Your task to perform on an android device: open sync settings in chrome Image 0: 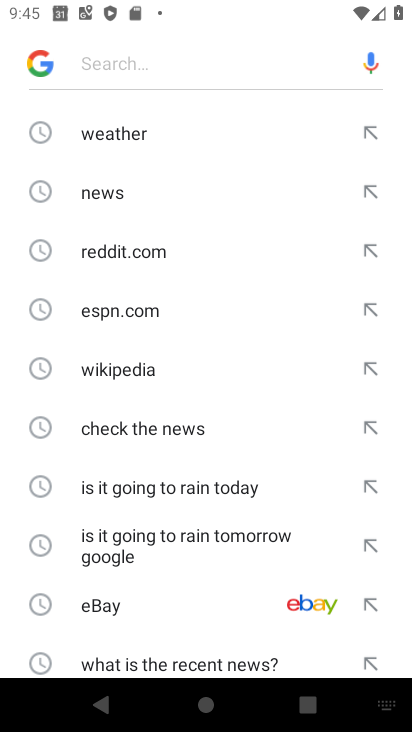
Step 0: press home button
Your task to perform on an android device: open sync settings in chrome Image 1: 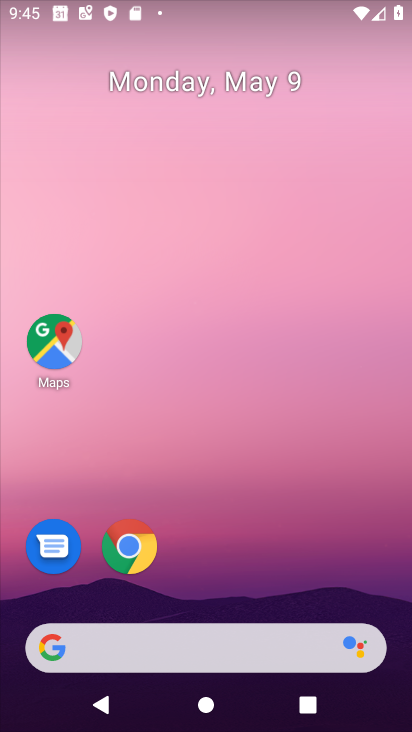
Step 1: click (132, 555)
Your task to perform on an android device: open sync settings in chrome Image 2: 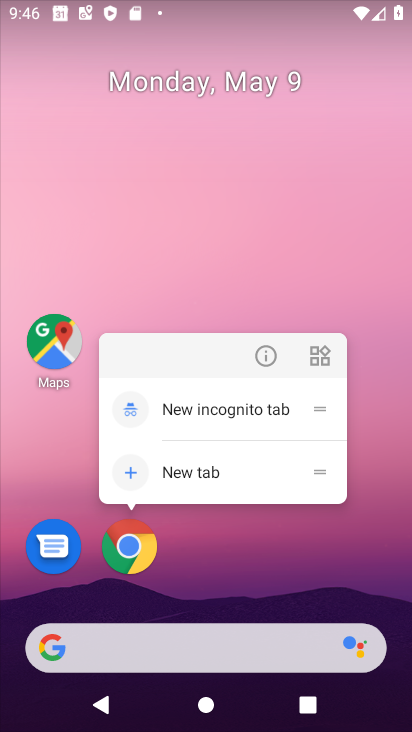
Step 2: click (48, 535)
Your task to perform on an android device: open sync settings in chrome Image 3: 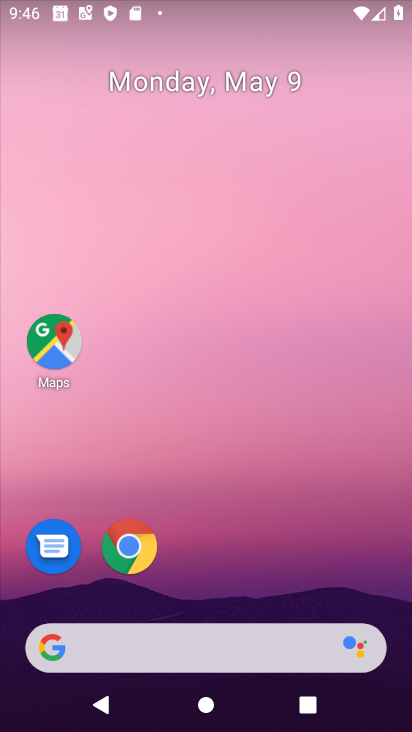
Step 3: click (121, 540)
Your task to perform on an android device: open sync settings in chrome Image 4: 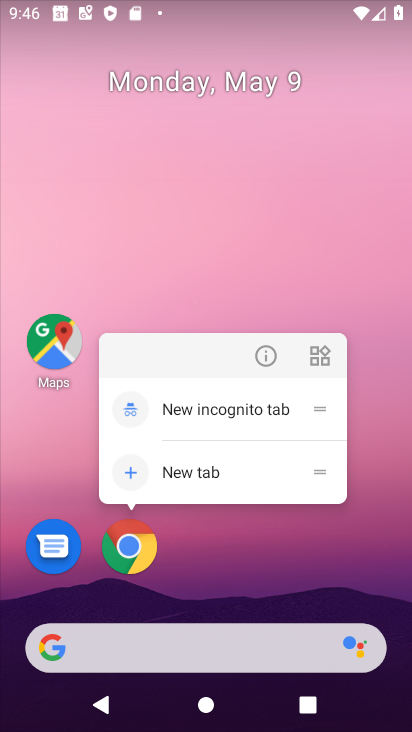
Step 4: click (124, 532)
Your task to perform on an android device: open sync settings in chrome Image 5: 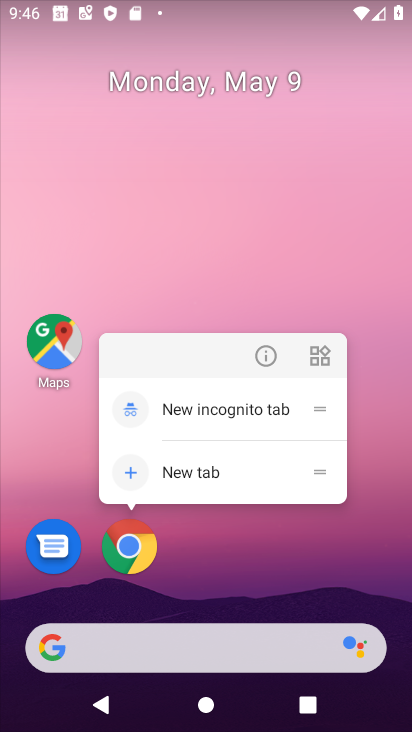
Step 5: click (124, 532)
Your task to perform on an android device: open sync settings in chrome Image 6: 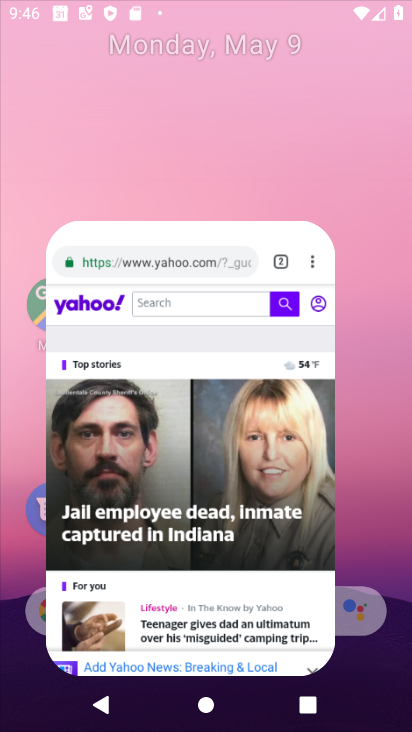
Step 6: click (124, 532)
Your task to perform on an android device: open sync settings in chrome Image 7: 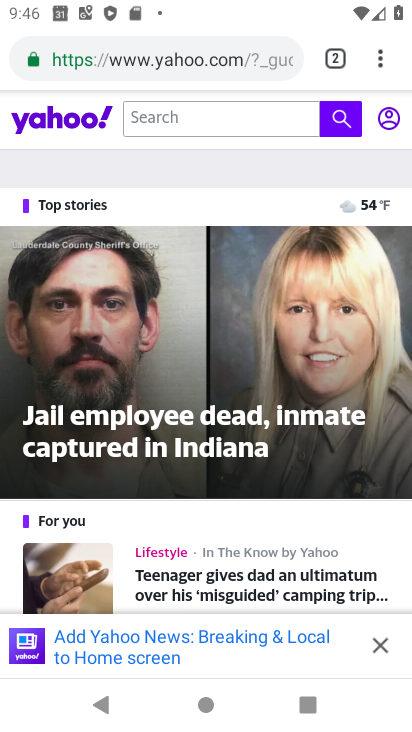
Step 7: click (381, 60)
Your task to perform on an android device: open sync settings in chrome Image 8: 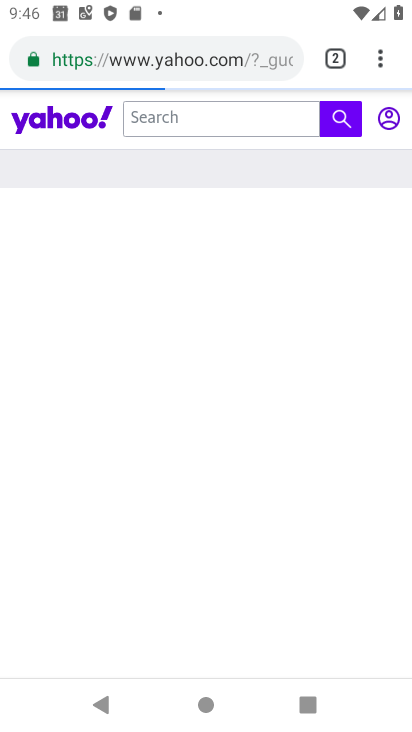
Step 8: click (381, 59)
Your task to perform on an android device: open sync settings in chrome Image 9: 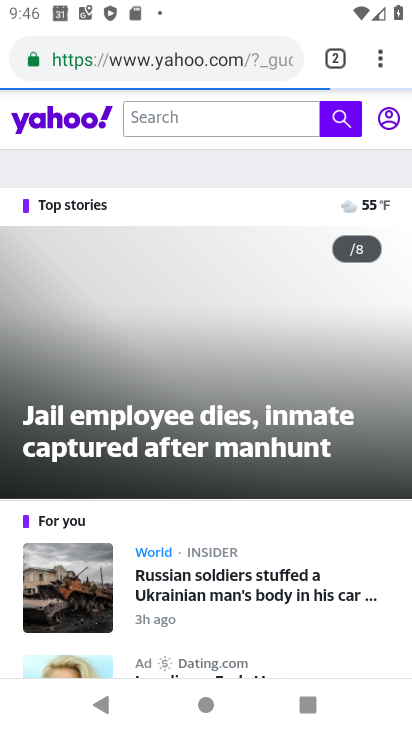
Step 9: click (381, 59)
Your task to perform on an android device: open sync settings in chrome Image 10: 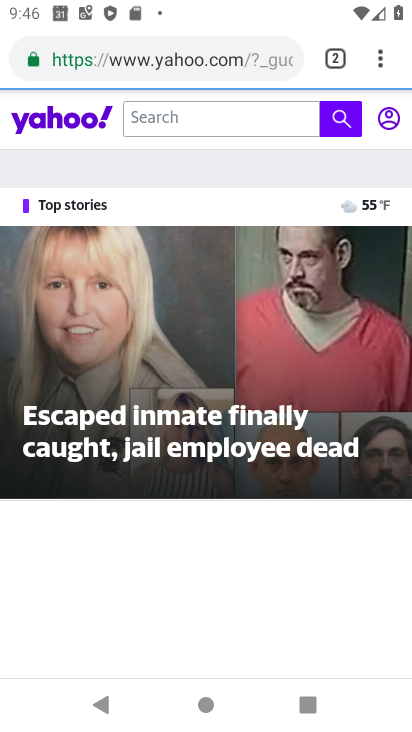
Step 10: click (381, 59)
Your task to perform on an android device: open sync settings in chrome Image 11: 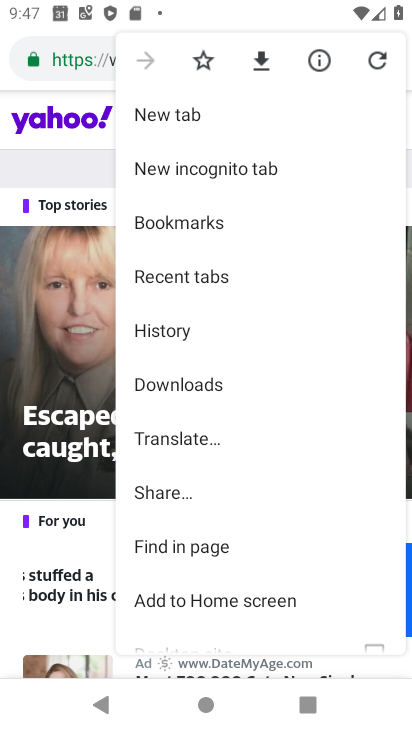
Step 11: drag from (315, 596) to (305, 123)
Your task to perform on an android device: open sync settings in chrome Image 12: 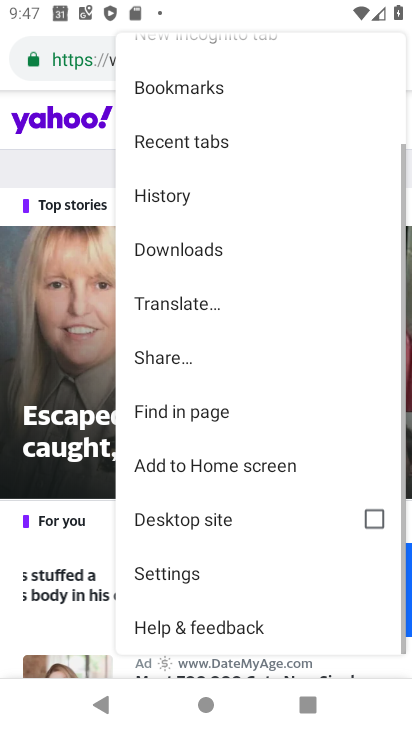
Step 12: click (185, 575)
Your task to perform on an android device: open sync settings in chrome Image 13: 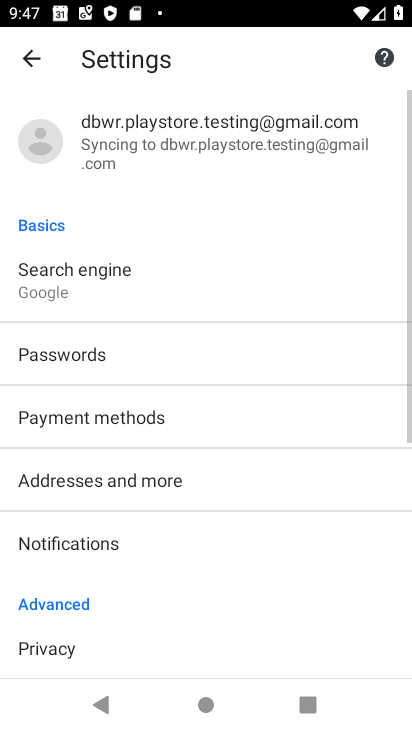
Step 13: click (150, 129)
Your task to perform on an android device: open sync settings in chrome Image 14: 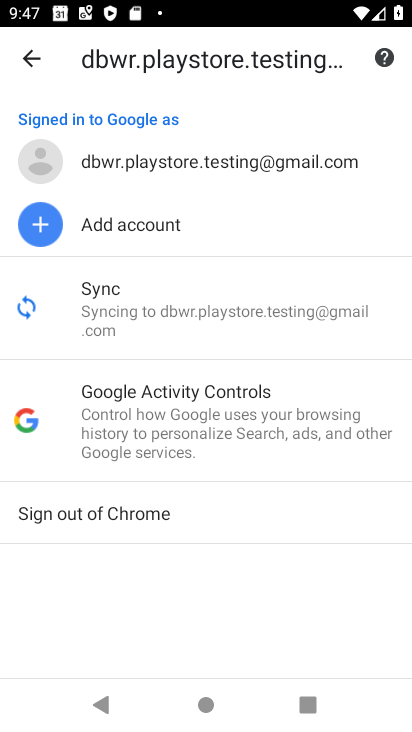
Step 14: task complete